Your task to perform on an android device: turn smart compose on in the gmail app Image 0: 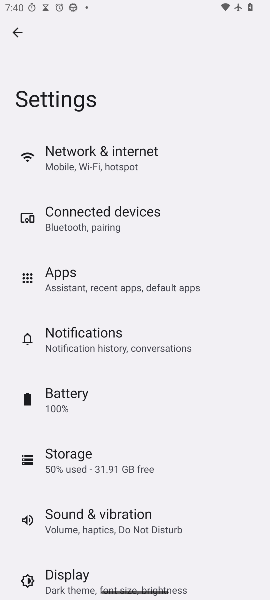
Step 0: press home button
Your task to perform on an android device: turn smart compose on in the gmail app Image 1: 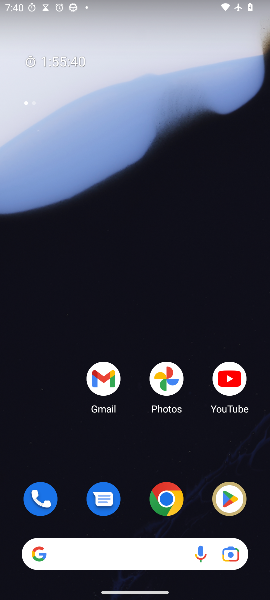
Step 1: drag from (135, 450) to (269, 83)
Your task to perform on an android device: turn smart compose on in the gmail app Image 2: 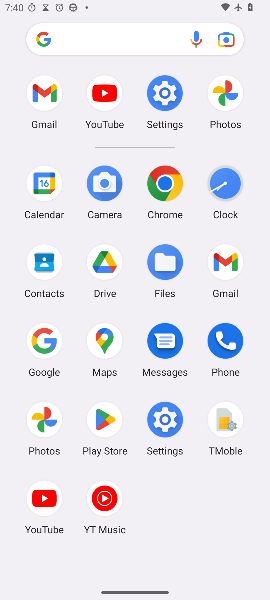
Step 2: click (50, 97)
Your task to perform on an android device: turn smart compose on in the gmail app Image 3: 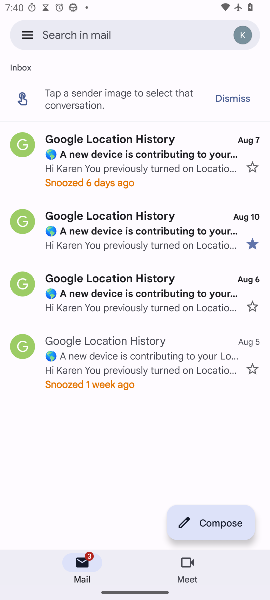
Step 3: click (28, 36)
Your task to perform on an android device: turn smart compose on in the gmail app Image 4: 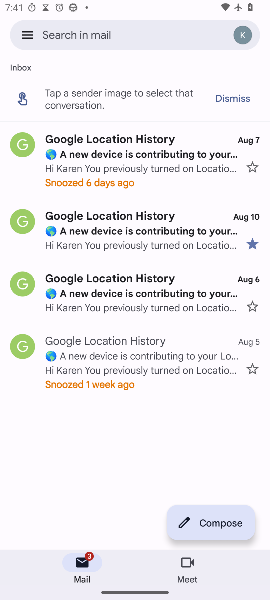
Step 4: click (28, 35)
Your task to perform on an android device: turn smart compose on in the gmail app Image 5: 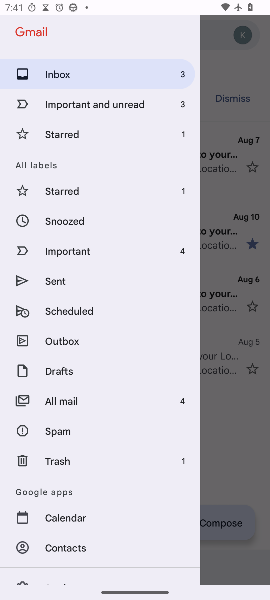
Step 5: drag from (95, 527) to (120, 173)
Your task to perform on an android device: turn smart compose on in the gmail app Image 6: 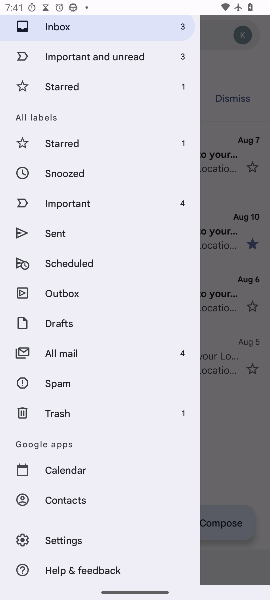
Step 6: click (63, 545)
Your task to perform on an android device: turn smart compose on in the gmail app Image 7: 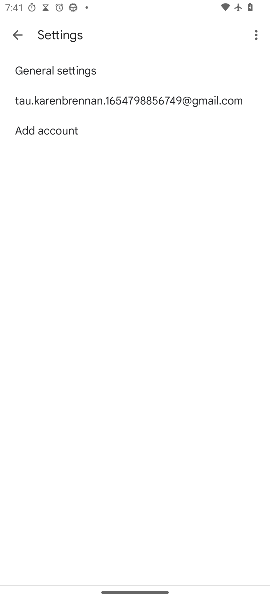
Step 7: click (34, 101)
Your task to perform on an android device: turn smart compose on in the gmail app Image 8: 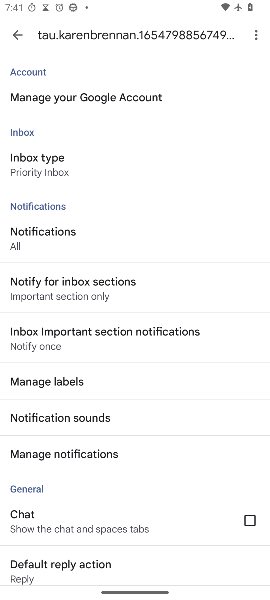
Step 8: task complete